Your task to perform on an android device: Do I have any events today? Image 0: 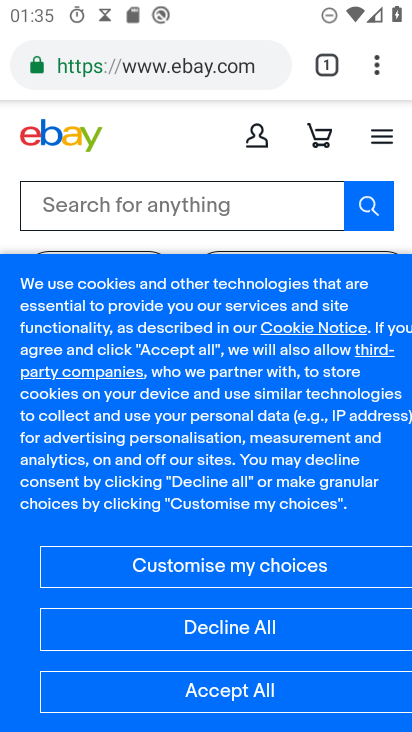
Step 0: press home button
Your task to perform on an android device: Do I have any events today? Image 1: 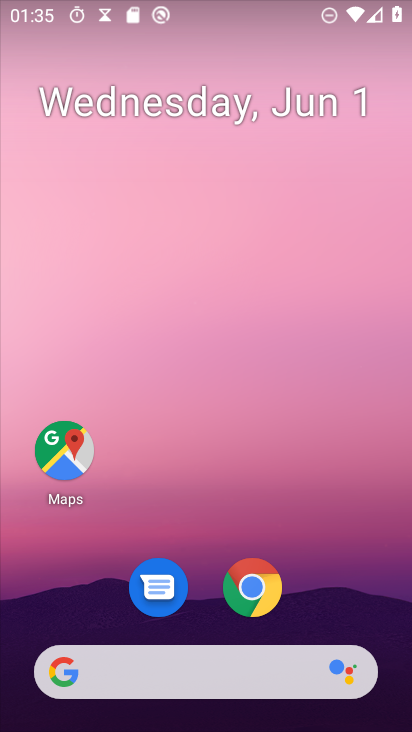
Step 1: drag from (338, 596) to (407, 145)
Your task to perform on an android device: Do I have any events today? Image 2: 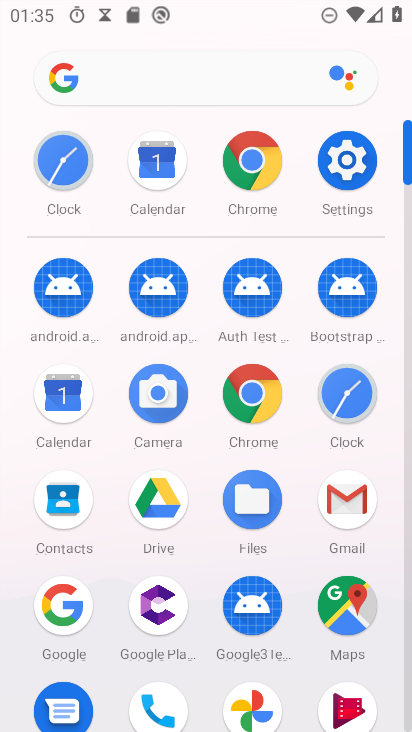
Step 2: click (71, 396)
Your task to perform on an android device: Do I have any events today? Image 3: 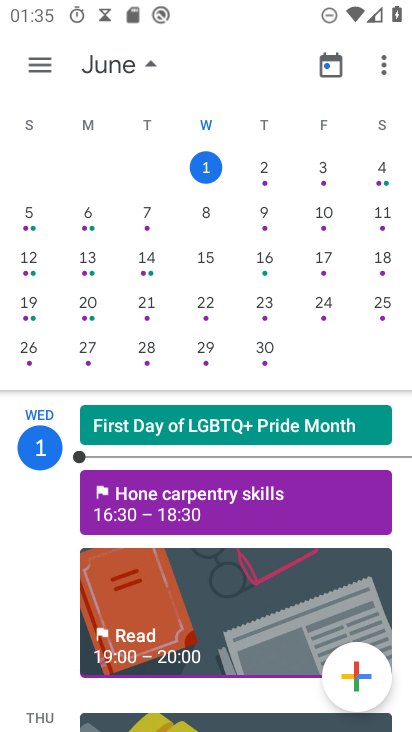
Step 3: task complete